Your task to perform on an android device: Search for Mexican restaurants on Maps Image 0: 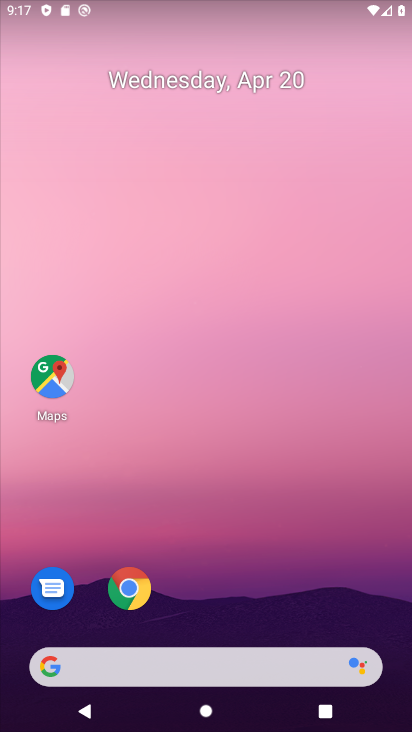
Step 0: click (58, 381)
Your task to perform on an android device: Search for Mexican restaurants on Maps Image 1: 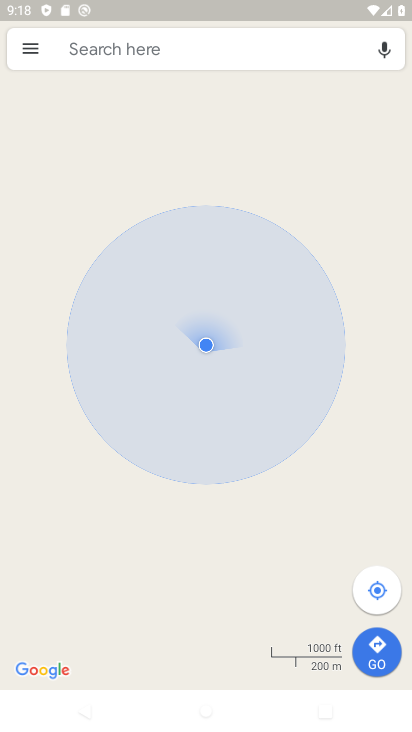
Step 1: click (187, 46)
Your task to perform on an android device: Search for Mexican restaurants on Maps Image 2: 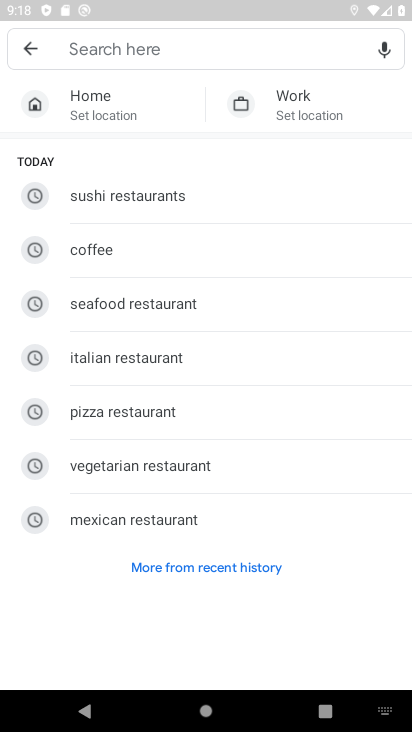
Step 2: type "mexican restaurants"
Your task to perform on an android device: Search for Mexican restaurants on Maps Image 3: 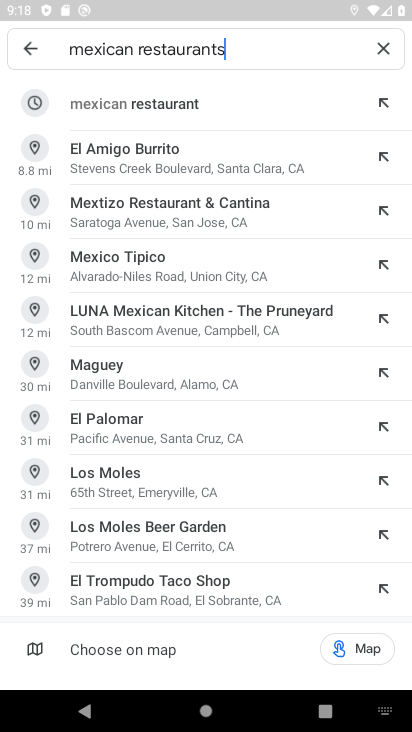
Step 3: click (106, 101)
Your task to perform on an android device: Search for Mexican restaurants on Maps Image 4: 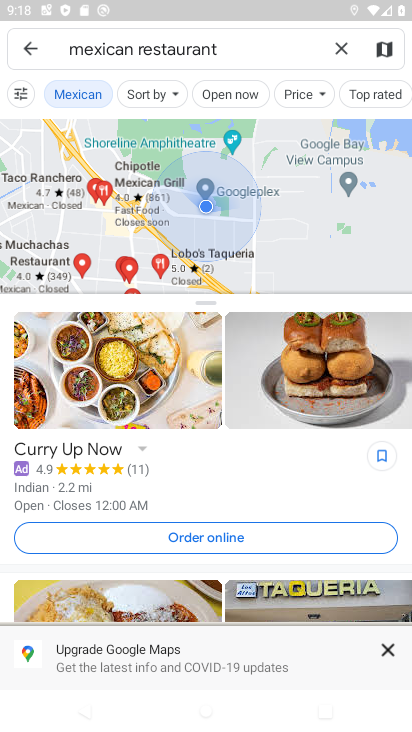
Step 4: task complete